Your task to perform on an android device: Go to Maps Image 0: 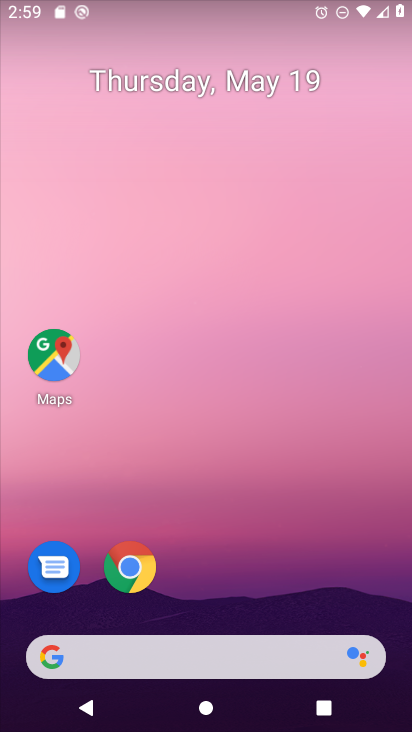
Step 0: click (52, 353)
Your task to perform on an android device: Go to Maps Image 1: 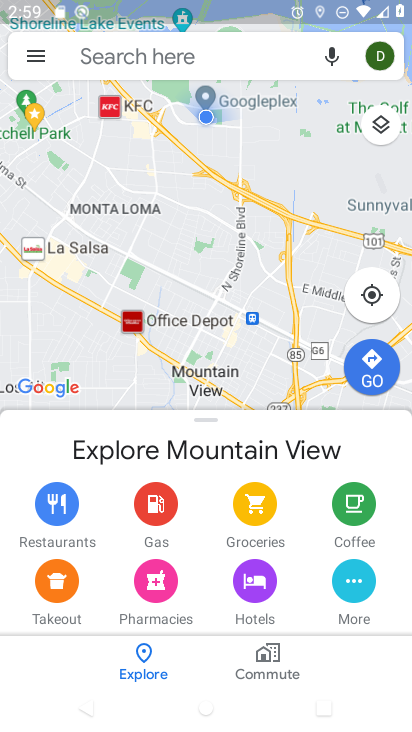
Step 1: task complete